Your task to perform on an android device: Turn on the flashlight Image 0: 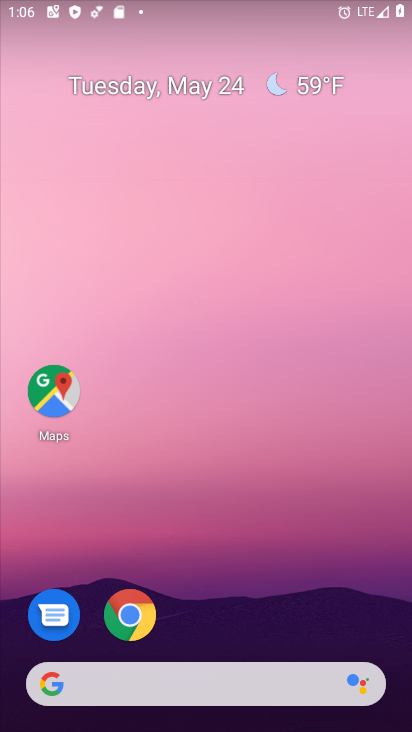
Step 0: drag from (262, 571) to (262, 41)
Your task to perform on an android device: Turn on the flashlight Image 1: 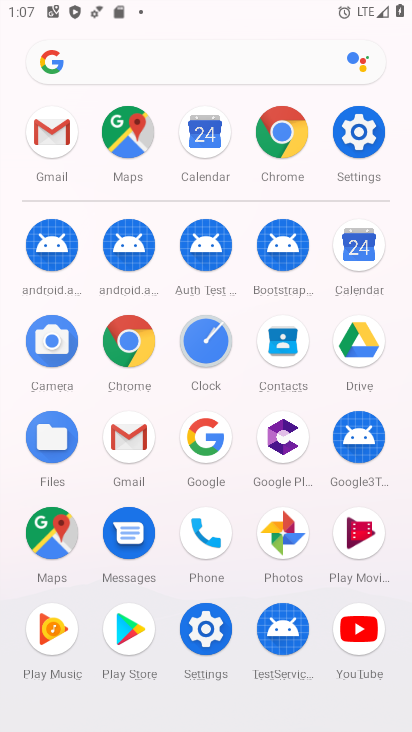
Step 1: drag from (6, 581) to (16, 205)
Your task to perform on an android device: Turn on the flashlight Image 2: 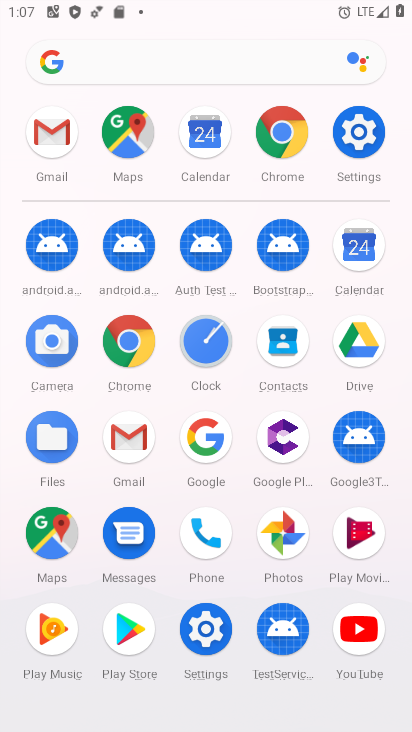
Step 2: click (205, 625)
Your task to perform on an android device: Turn on the flashlight Image 3: 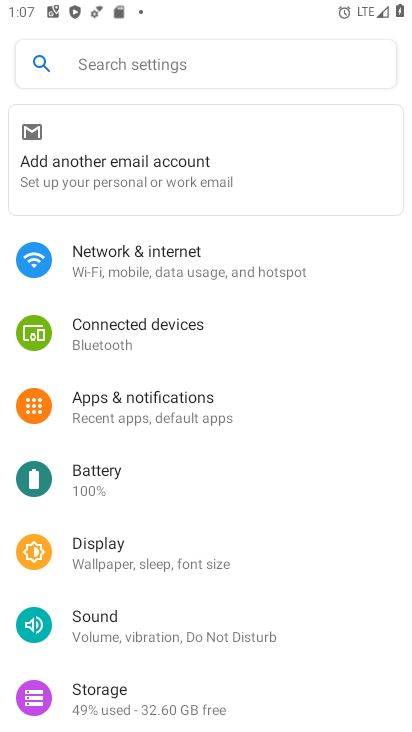
Step 3: click (177, 264)
Your task to perform on an android device: Turn on the flashlight Image 4: 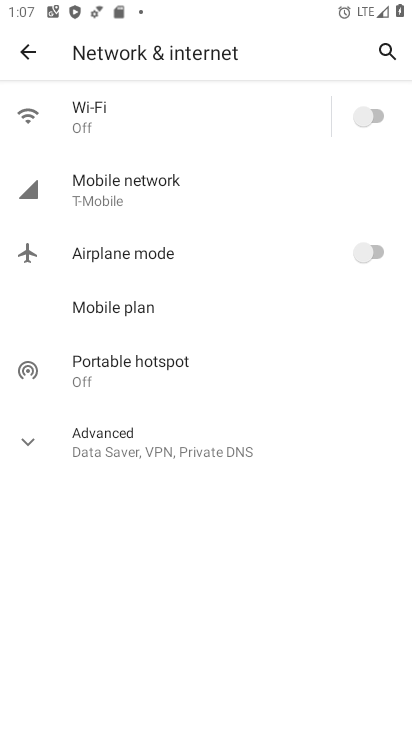
Step 4: click (16, 430)
Your task to perform on an android device: Turn on the flashlight Image 5: 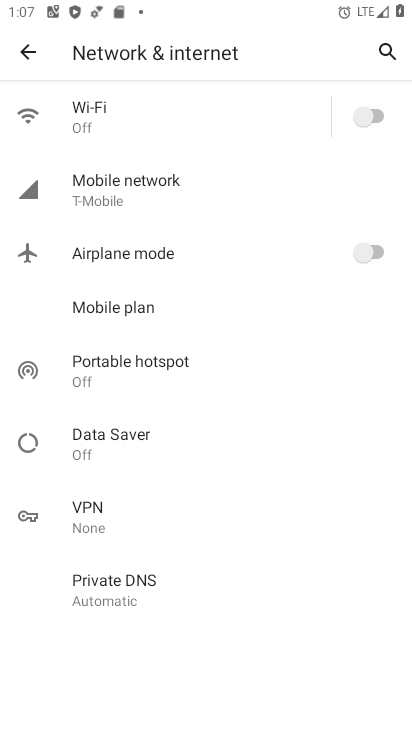
Step 5: task complete